Your task to perform on an android device: Is it going to rain today? Image 0: 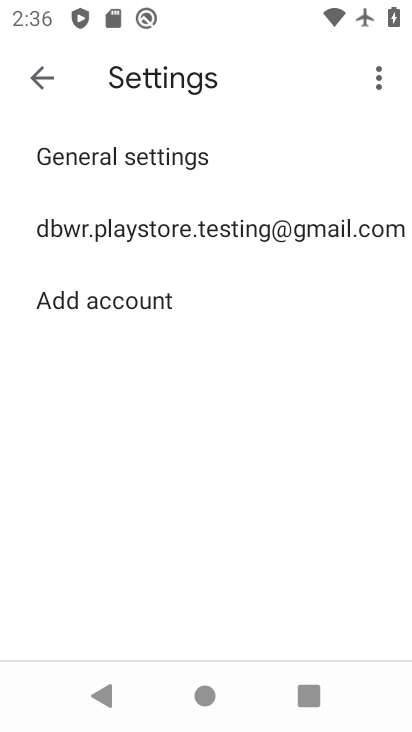
Step 0: press home button
Your task to perform on an android device: Is it going to rain today? Image 1: 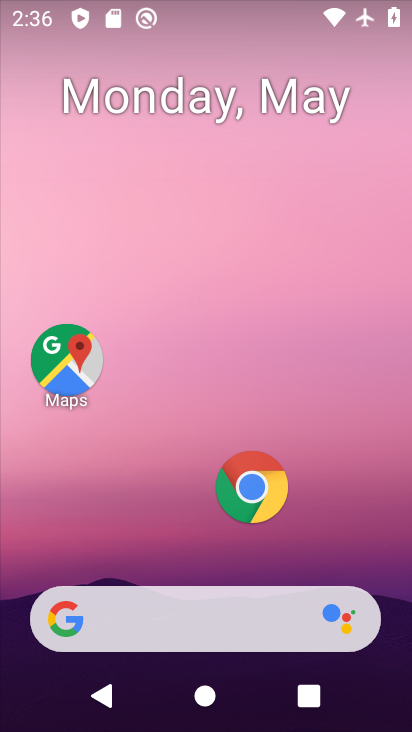
Step 1: click (136, 620)
Your task to perform on an android device: Is it going to rain today? Image 2: 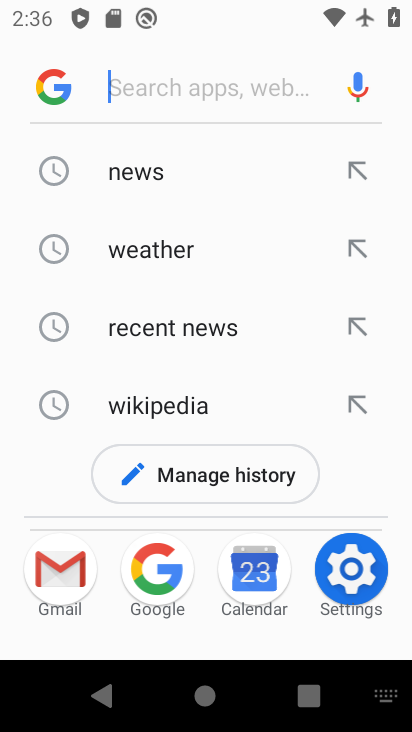
Step 2: type "is it going to rain today"
Your task to perform on an android device: Is it going to rain today? Image 3: 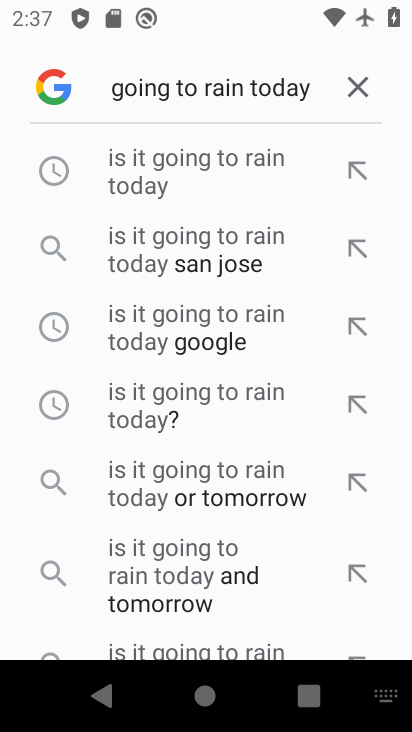
Step 3: click (162, 179)
Your task to perform on an android device: Is it going to rain today? Image 4: 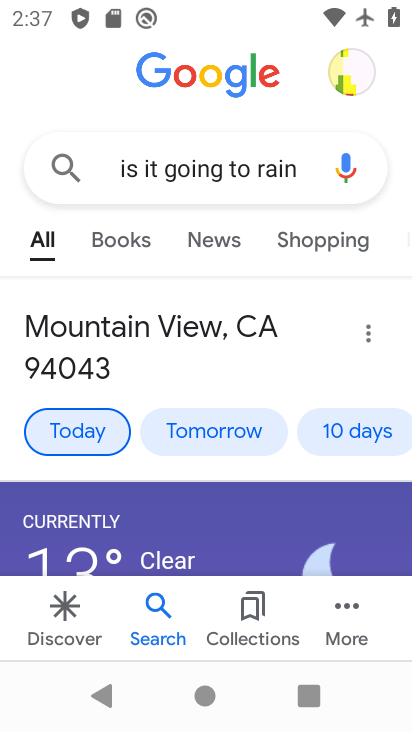
Step 4: task complete